Your task to perform on an android device: make emails show in primary in the gmail app Image 0: 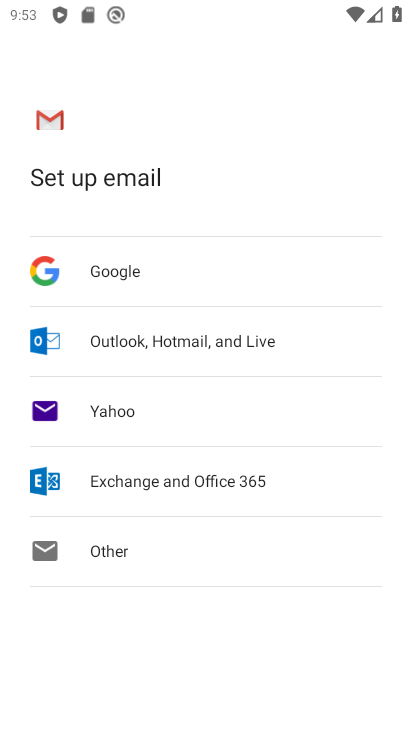
Step 0: press home button
Your task to perform on an android device: make emails show in primary in the gmail app Image 1: 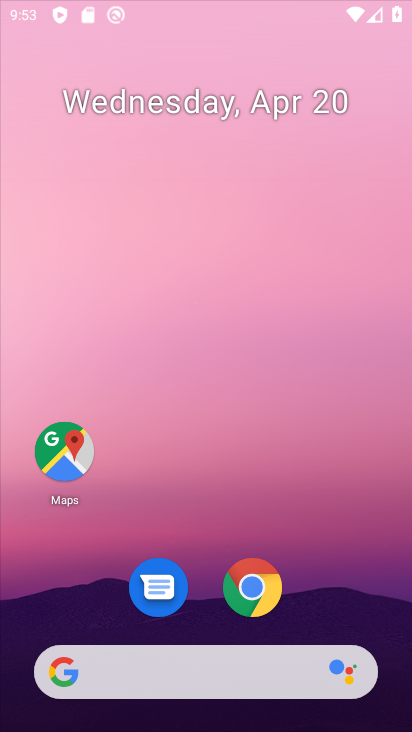
Step 1: press home button
Your task to perform on an android device: make emails show in primary in the gmail app Image 2: 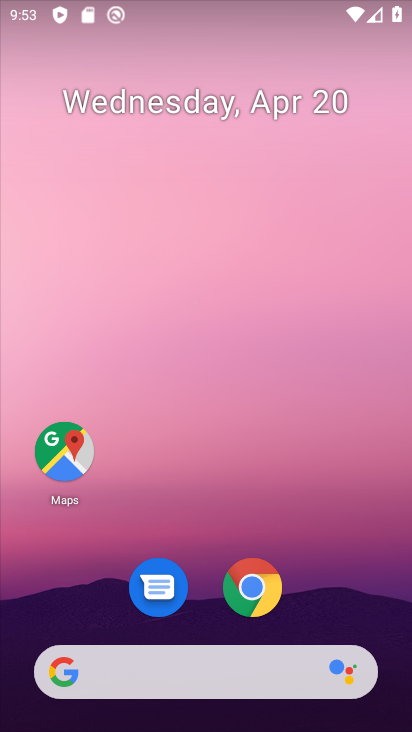
Step 2: drag from (336, 509) to (389, 0)
Your task to perform on an android device: make emails show in primary in the gmail app Image 3: 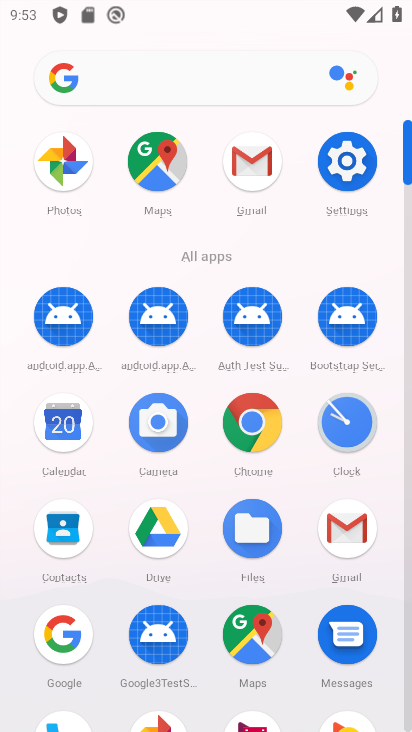
Step 3: click (256, 280)
Your task to perform on an android device: make emails show in primary in the gmail app Image 4: 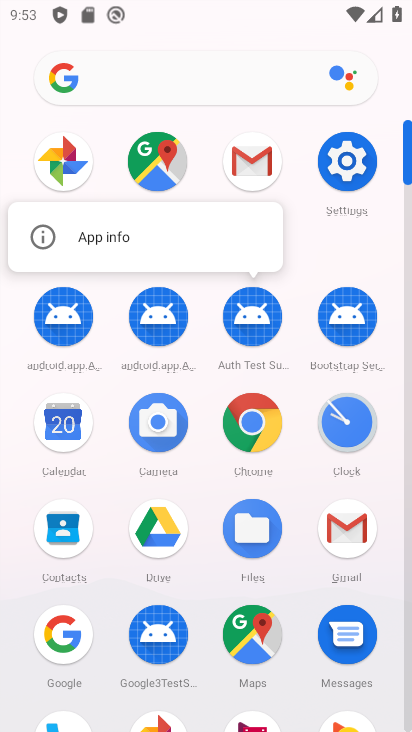
Step 4: click (293, 167)
Your task to perform on an android device: make emails show in primary in the gmail app Image 5: 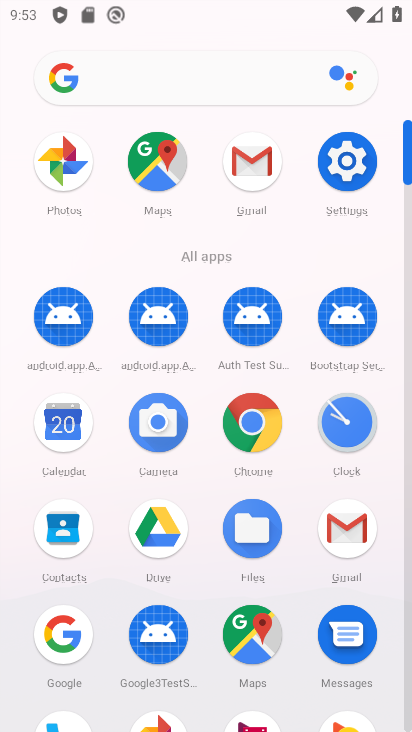
Step 5: click (262, 182)
Your task to perform on an android device: make emails show in primary in the gmail app Image 6: 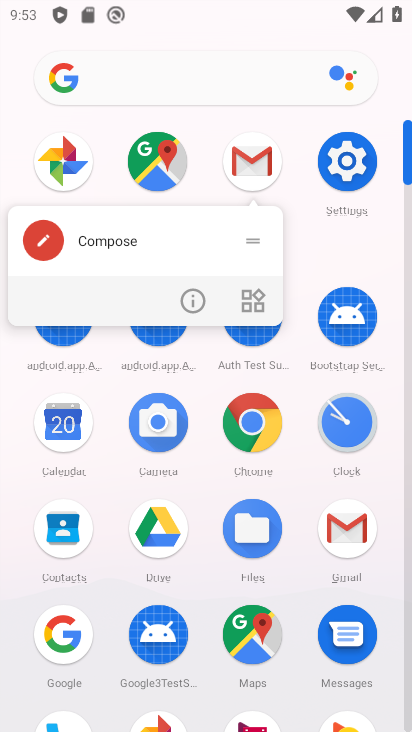
Step 6: click (236, 154)
Your task to perform on an android device: make emails show in primary in the gmail app Image 7: 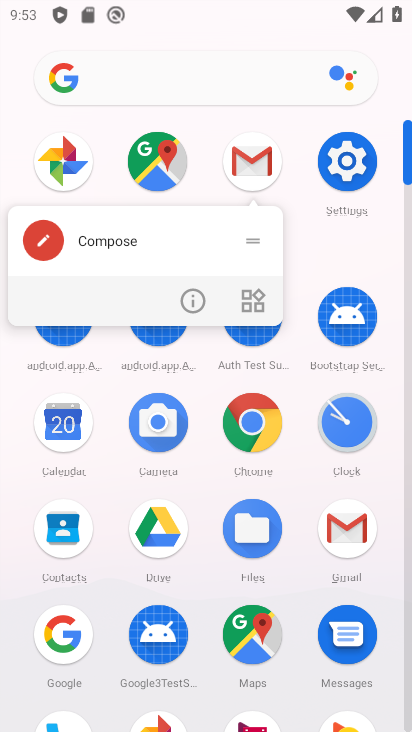
Step 7: click (254, 142)
Your task to perform on an android device: make emails show in primary in the gmail app Image 8: 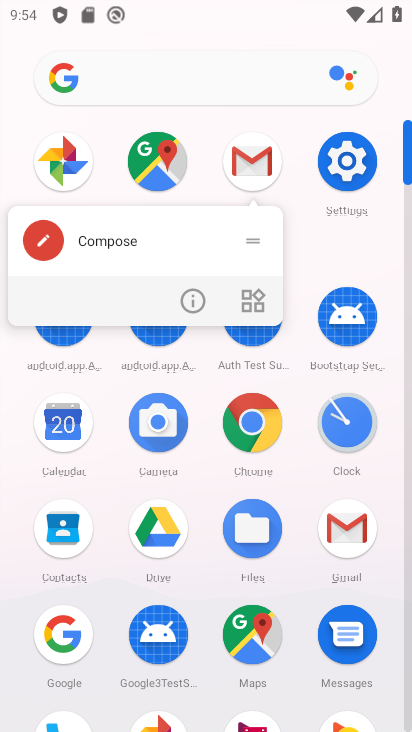
Step 8: click (262, 173)
Your task to perform on an android device: make emails show in primary in the gmail app Image 9: 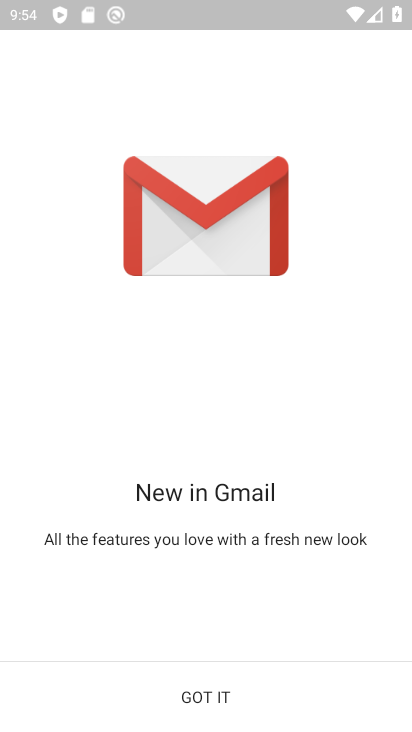
Step 9: click (254, 712)
Your task to perform on an android device: make emails show in primary in the gmail app Image 10: 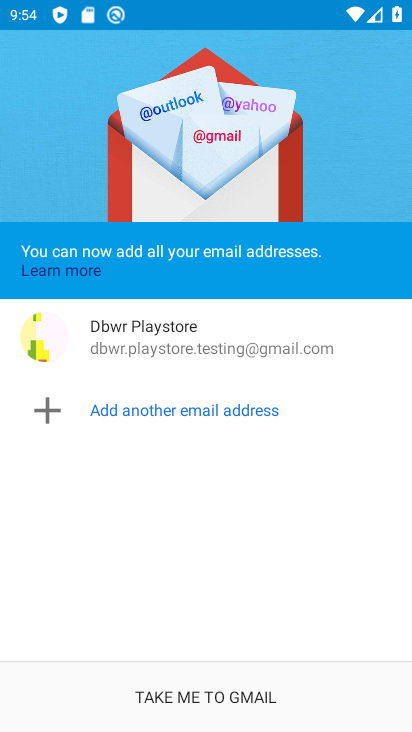
Step 10: click (240, 700)
Your task to perform on an android device: make emails show in primary in the gmail app Image 11: 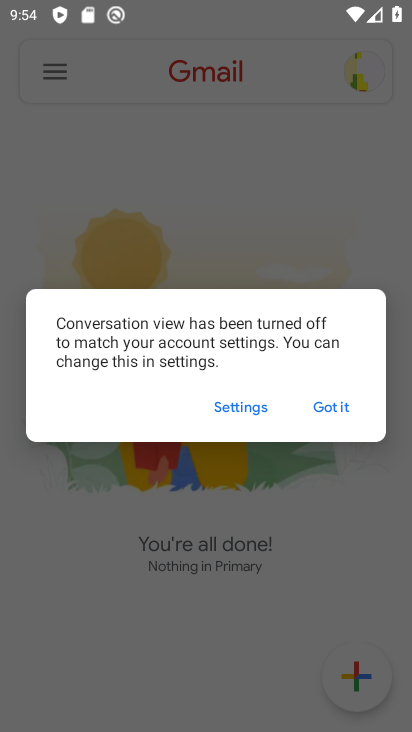
Step 11: click (335, 414)
Your task to perform on an android device: make emails show in primary in the gmail app Image 12: 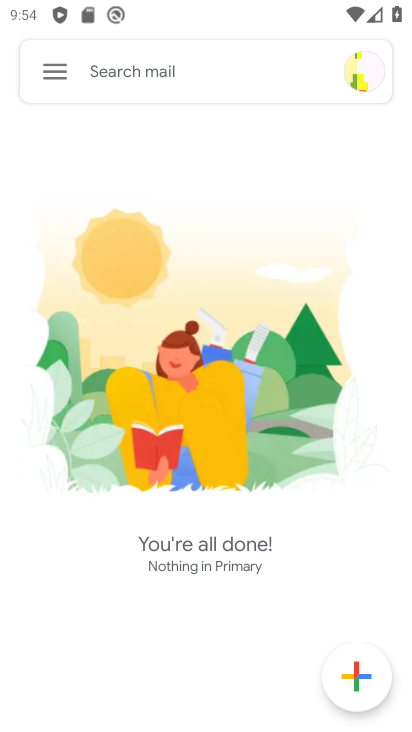
Step 12: click (45, 87)
Your task to perform on an android device: make emails show in primary in the gmail app Image 13: 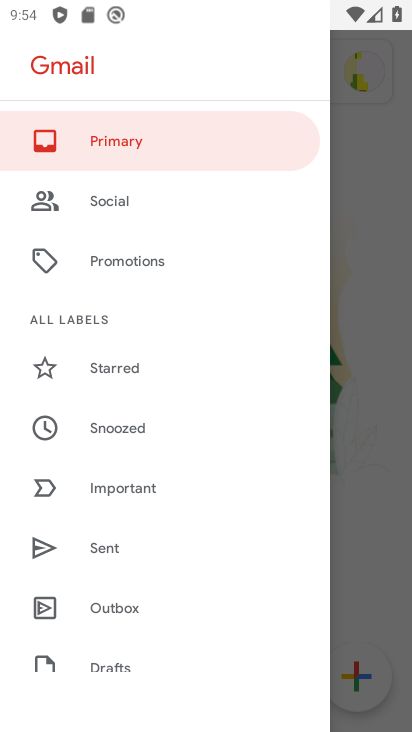
Step 13: drag from (186, 612) to (167, 289)
Your task to perform on an android device: make emails show in primary in the gmail app Image 14: 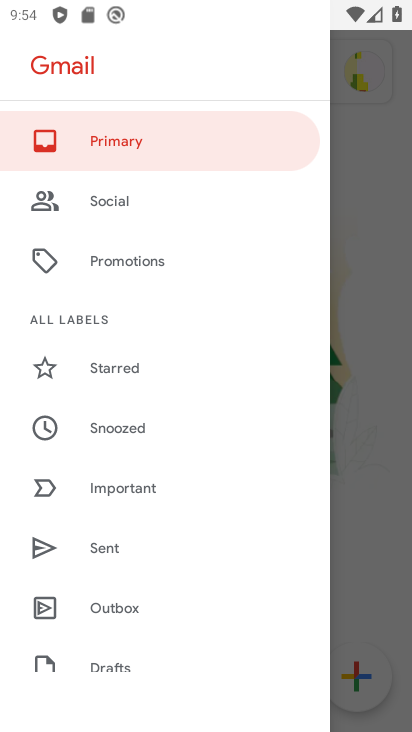
Step 14: drag from (126, 594) to (115, 258)
Your task to perform on an android device: make emails show in primary in the gmail app Image 15: 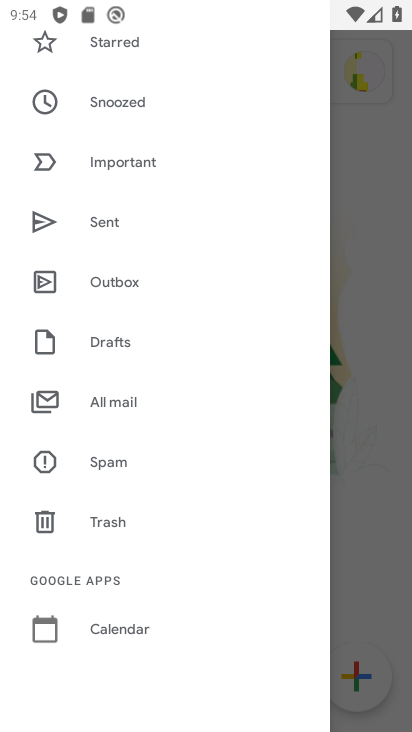
Step 15: drag from (151, 479) to (128, 324)
Your task to perform on an android device: make emails show in primary in the gmail app Image 16: 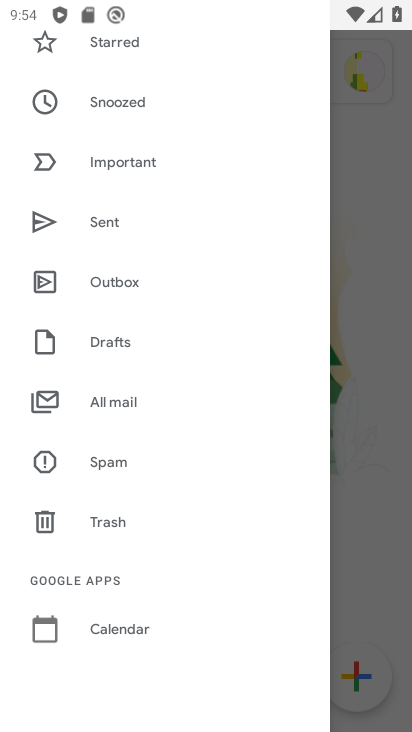
Step 16: drag from (177, 506) to (172, 270)
Your task to perform on an android device: make emails show in primary in the gmail app Image 17: 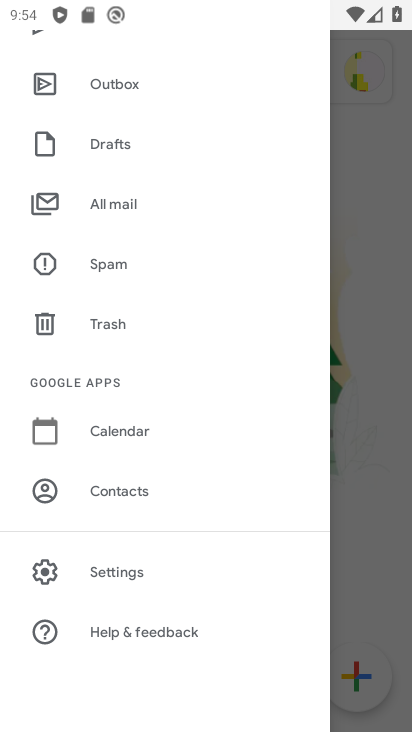
Step 17: click (119, 573)
Your task to perform on an android device: make emails show in primary in the gmail app Image 18: 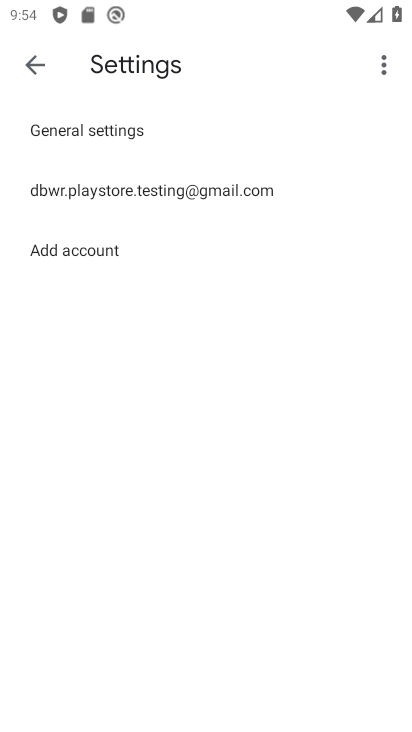
Step 18: click (253, 208)
Your task to perform on an android device: make emails show in primary in the gmail app Image 19: 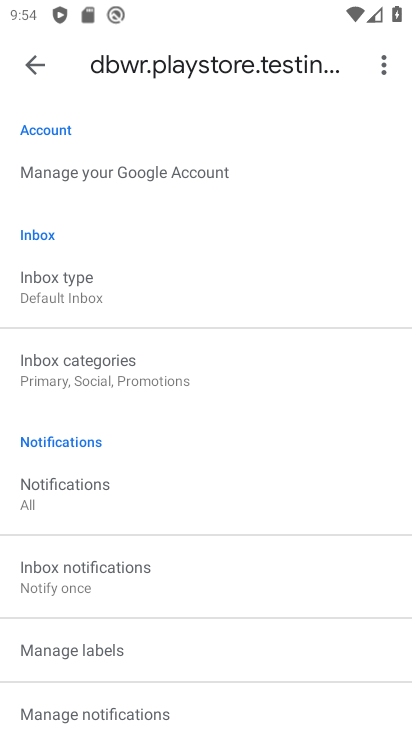
Step 19: click (99, 376)
Your task to perform on an android device: make emails show in primary in the gmail app Image 20: 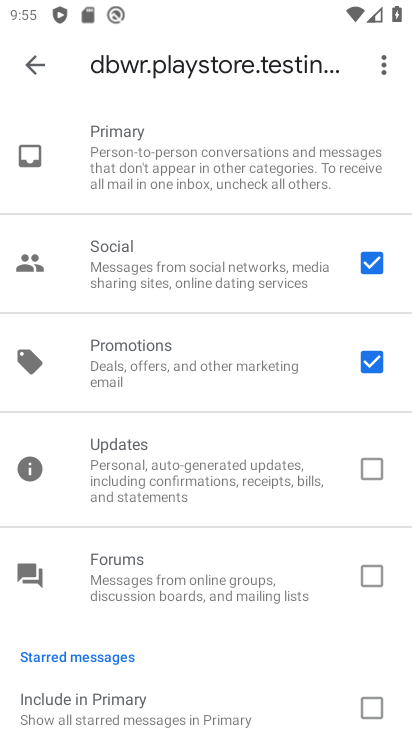
Step 20: click (376, 270)
Your task to perform on an android device: make emails show in primary in the gmail app Image 21: 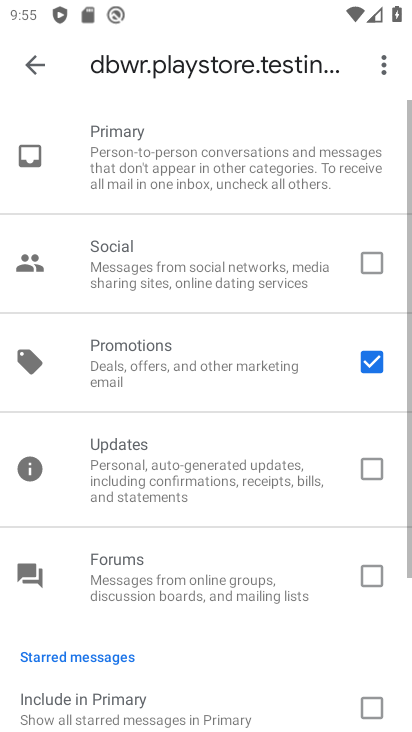
Step 21: click (379, 361)
Your task to perform on an android device: make emails show in primary in the gmail app Image 22: 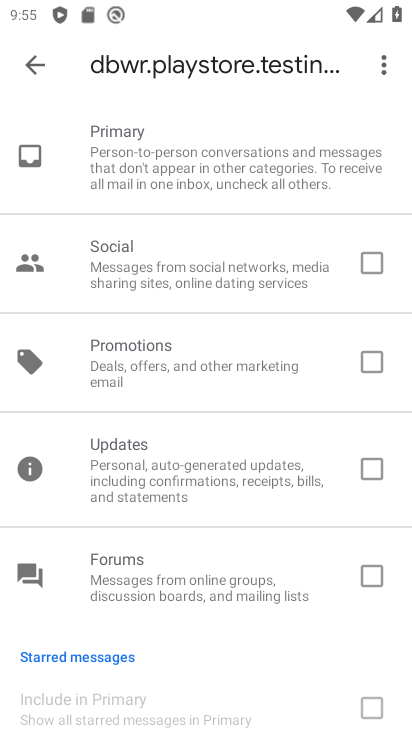
Step 22: task complete